Your task to perform on an android device: toggle priority inbox in the gmail app Image 0: 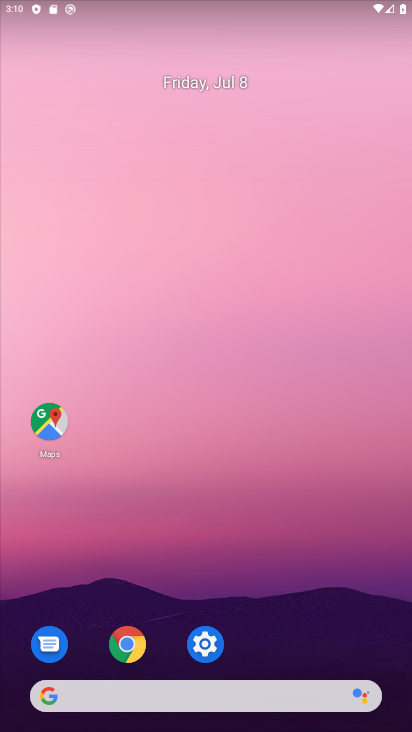
Step 0: drag from (53, 665) to (403, 729)
Your task to perform on an android device: toggle priority inbox in the gmail app Image 1: 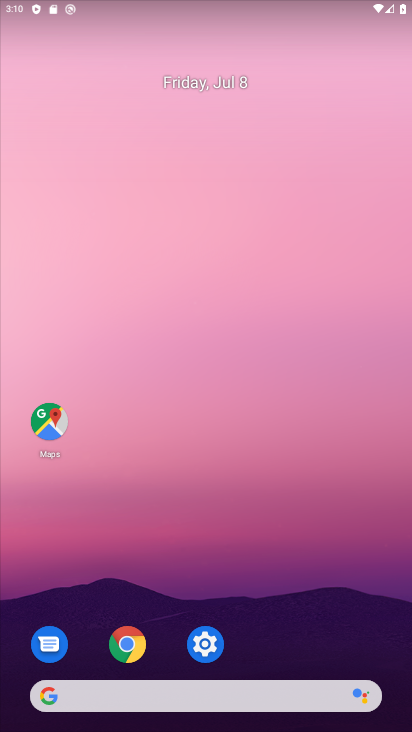
Step 1: drag from (143, 468) to (320, 3)
Your task to perform on an android device: toggle priority inbox in the gmail app Image 2: 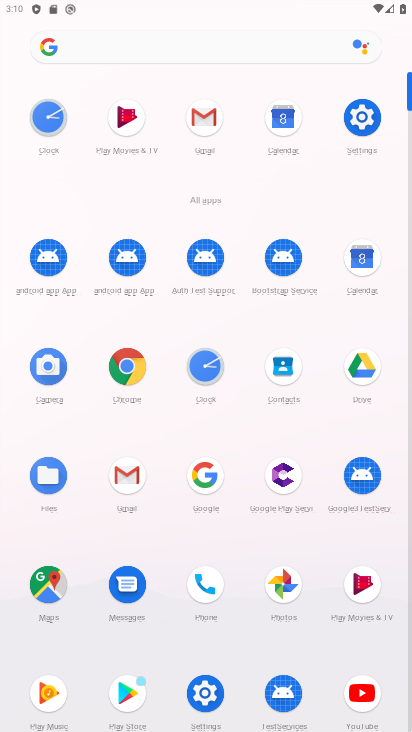
Step 2: click (207, 128)
Your task to perform on an android device: toggle priority inbox in the gmail app Image 3: 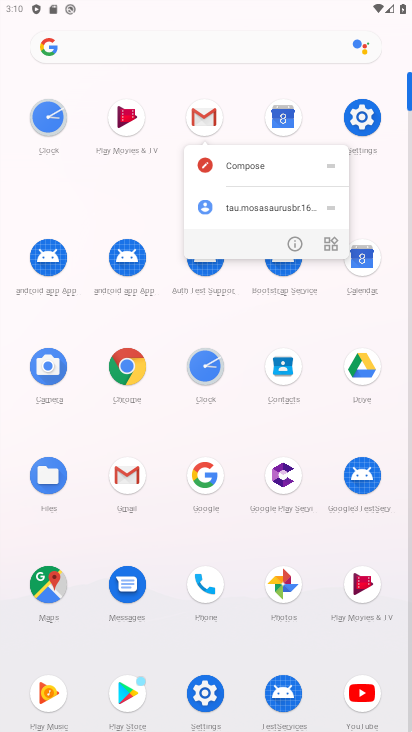
Step 3: click (208, 126)
Your task to perform on an android device: toggle priority inbox in the gmail app Image 4: 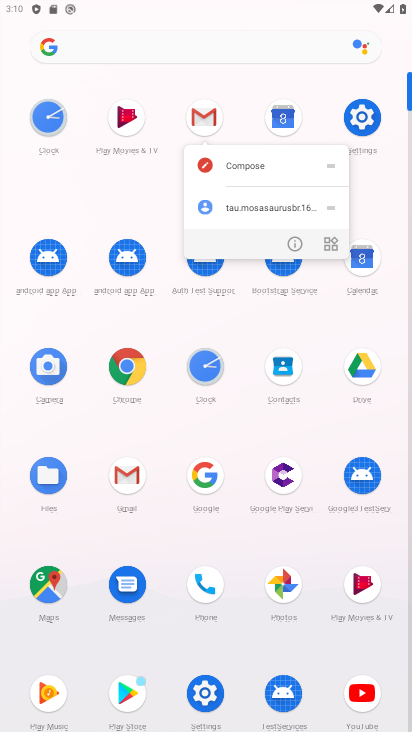
Step 4: click (193, 116)
Your task to perform on an android device: toggle priority inbox in the gmail app Image 5: 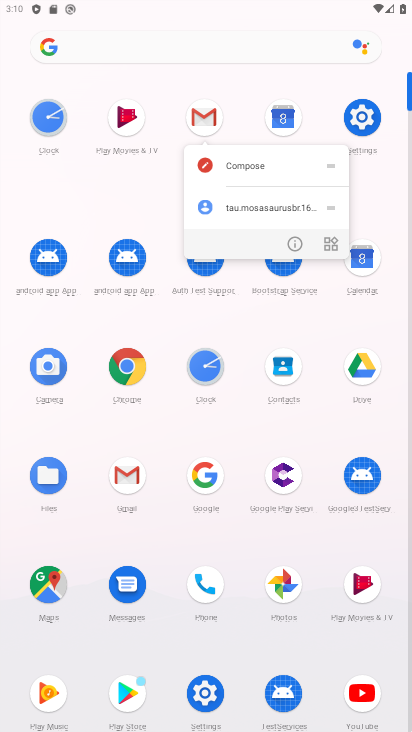
Step 5: click (209, 109)
Your task to perform on an android device: toggle priority inbox in the gmail app Image 6: 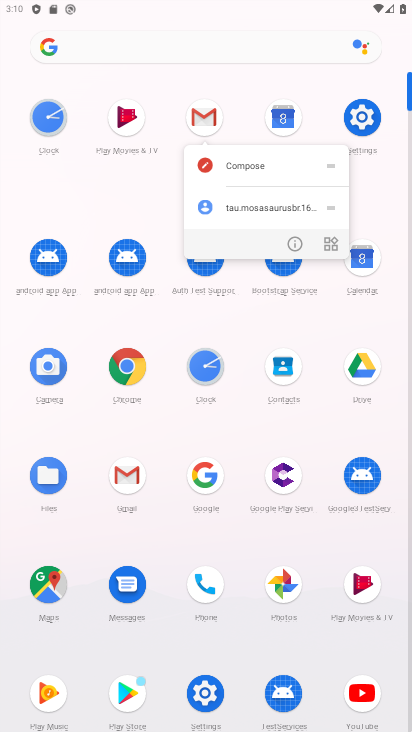
Step 6: click (201, 121)
Your task to perform on an android device: toggle priority inbox in the gmail app Image 7: 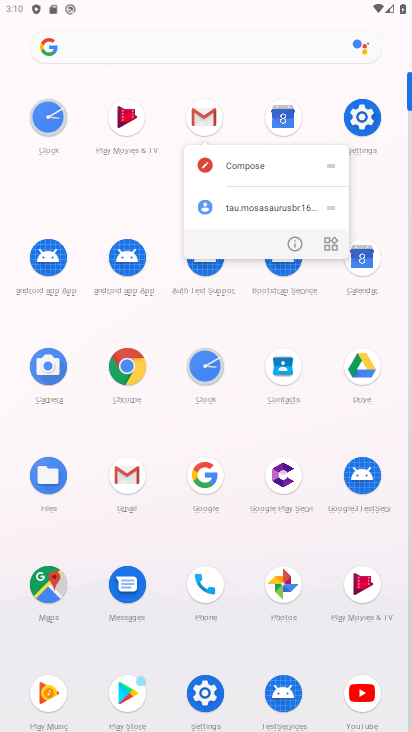
Step 7: click (201, 121)
Your task to perform on an android device: toggle priority inbox in the gmail app Image 8: 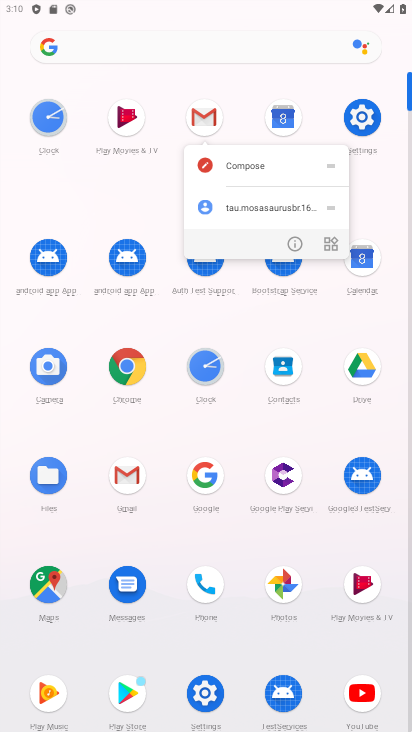
Step 8: task complete